Your task to perform on an android device: Go to calendar. Show me events next week Image 0: 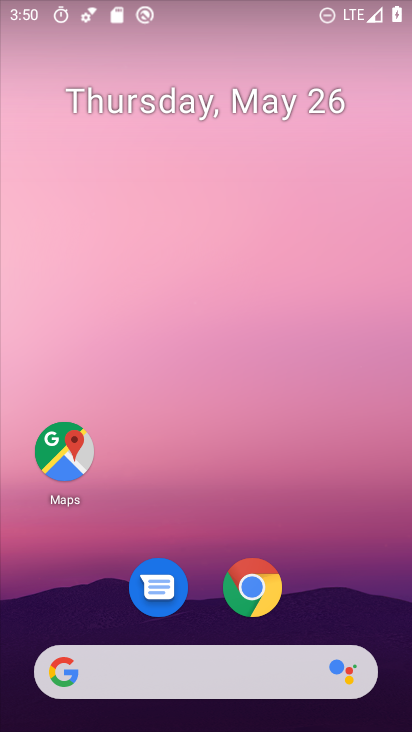
Step 0: drag from (313, 566) to (343, 203)
Your task to perform on an android device: Go to calendar. Show me events next week Image 1: 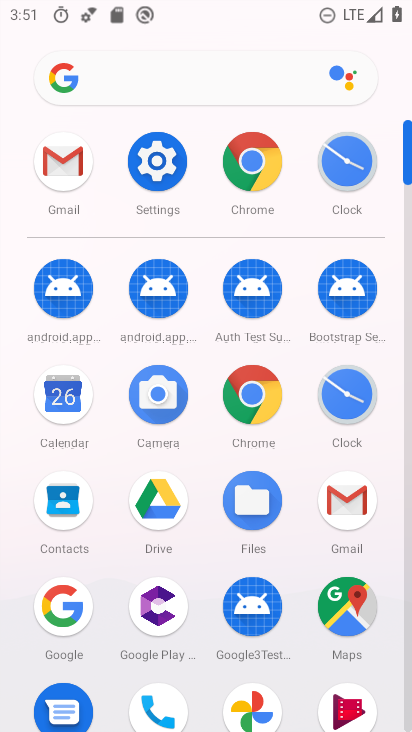
Step 1: click (68, 407)
Your task to perform on an android device: Go to calendar. Show me events next week Image 2: 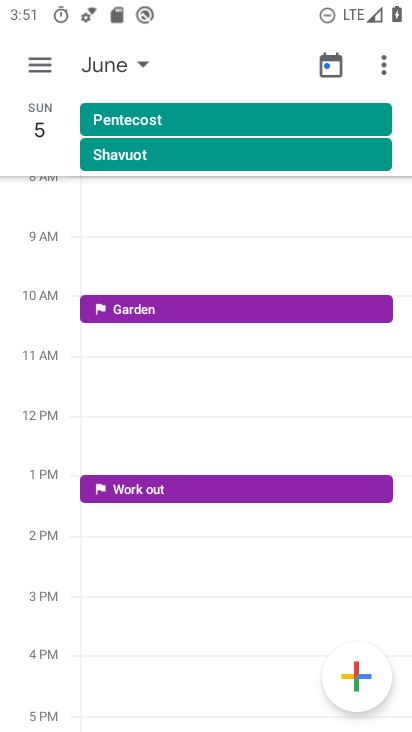
Step 2: click (107, 63)
Your task to perform on an android device: Go to calendar. Show me events next week Image 3: 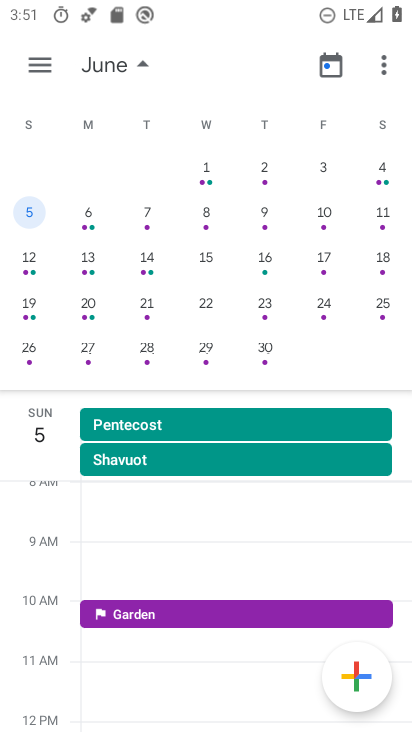
Step 3: drag from (29, 281) to (331, 250)
Your task to perform on an android device: Go to calendar. Show me events next week Image 4: 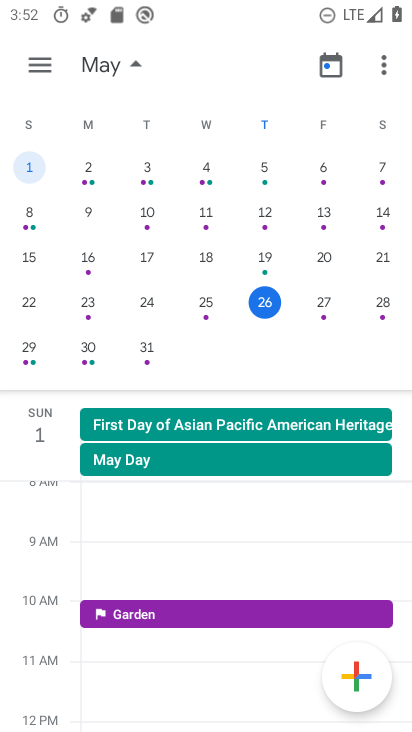
Step 4: click (148, 359)
Your task to perform on an android device: Go to calendar. Show me events next week Image 5: 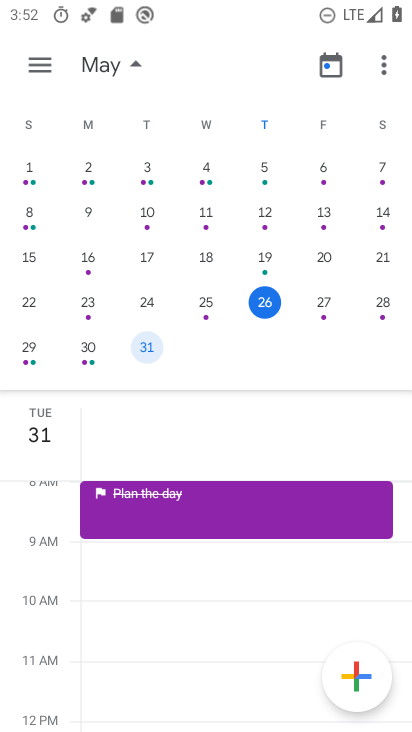
Step 5: click (43, 65)
Your task to perform on an android device: Go to calendar. Show me events next week Image 6: 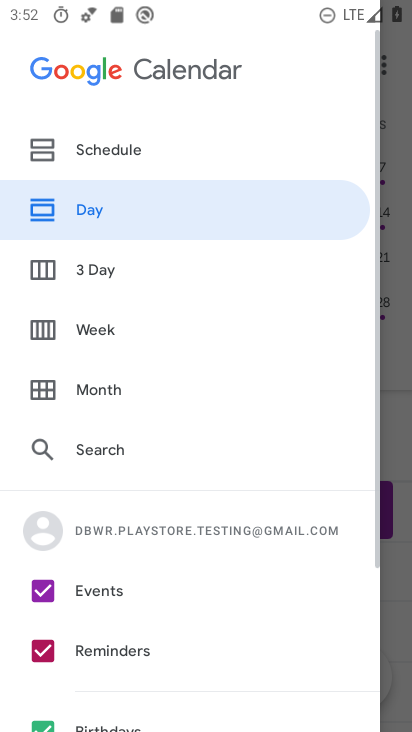
Step 6: click (98, 330)
Your task to perform on an android device: Go to calendar. Show me events next week Image 7: 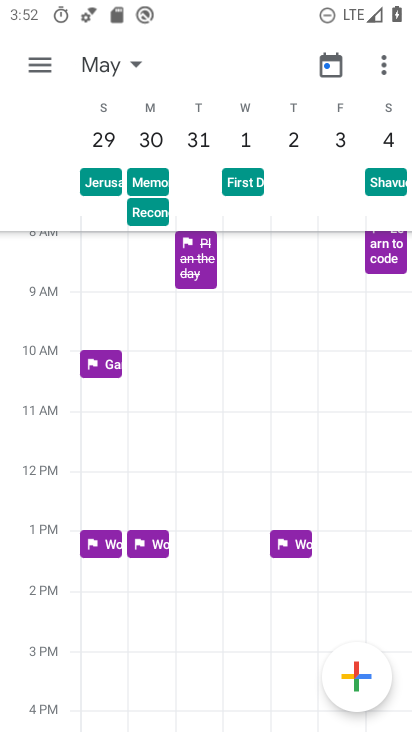
Step 7: task complete